Your task to perform on an android device: Search for Mexican restaurants on Maps Image 0: 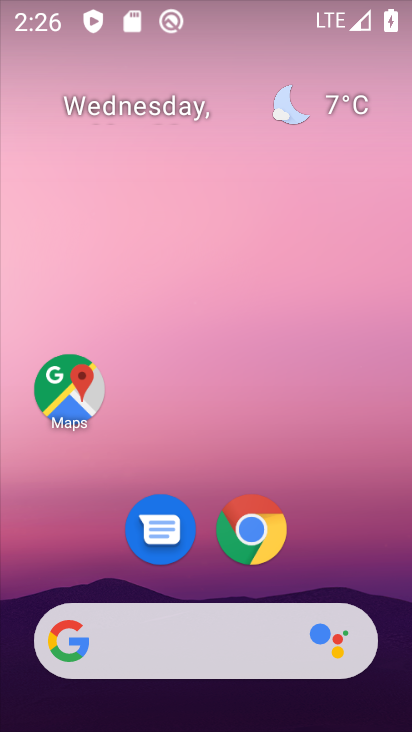
Step 0: drag from (354, 544) to (369, 87)
Your task to perform on an android device: Search for Mexican restaurants on Maps Image 1: 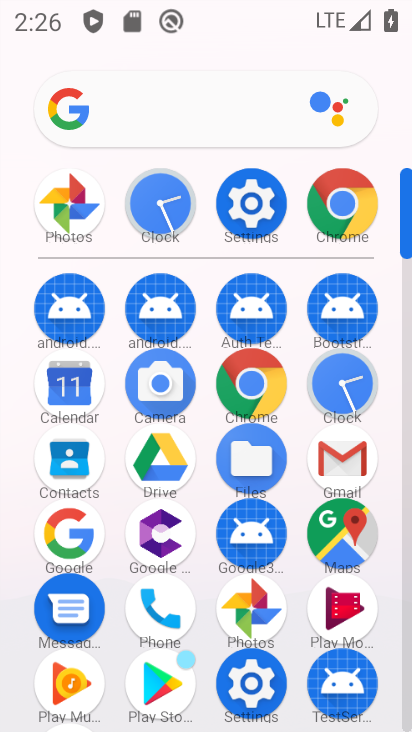
Step 1: click (342, 541)
Your task to perform on an android device: Search for Mexican restaurants on Maps Image 2: 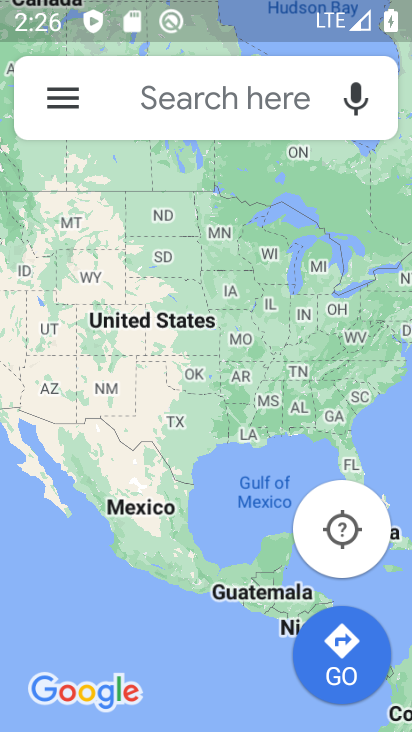
Step 2: click (187, 85)
Your task to perform on an android device: Search for Mexican restaurants on Maps Image 3: 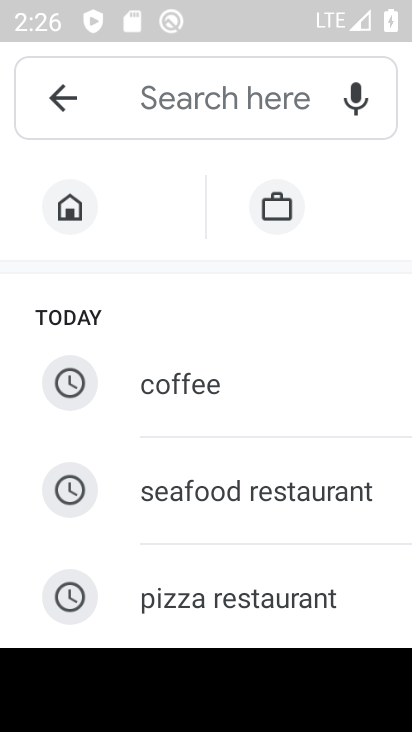
Step 3: drag from (294, 578) to (323, 165)
Your task to perform on an android device: Search for Mexican restaurants on Maps Image 4: 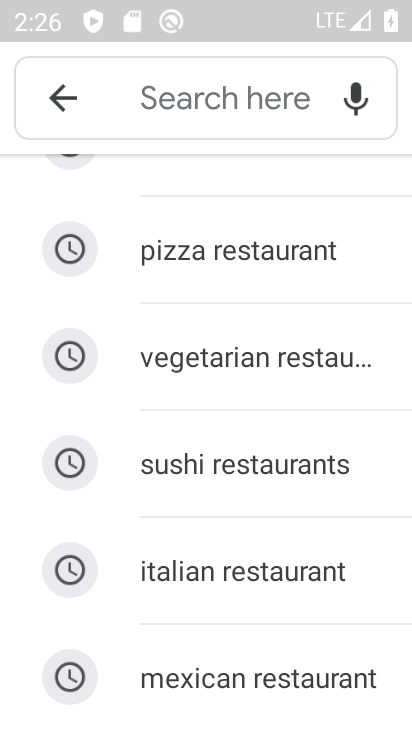
Step 4: click (317, 665)
Your task to perform on an android device: Search for Mexican restaurants on Maps Image 5: 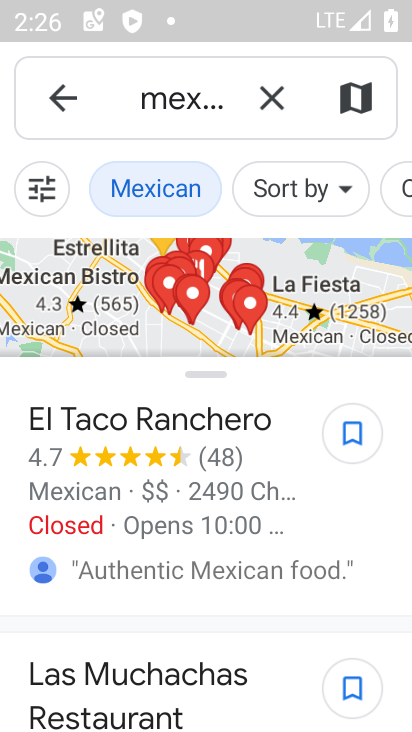
Step 5: task complete